Your task to perform on an android device: Open Chrome and go to settings Image 0: 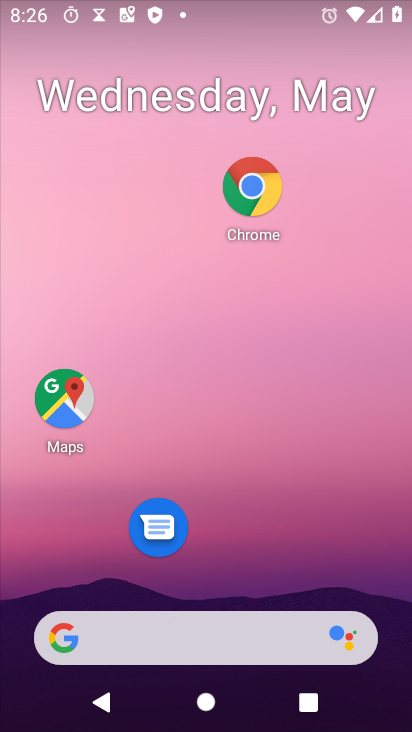
Step 0: click (274, 177)
Your task to perform on an android device: Open Chrome and go to settings Image 1: 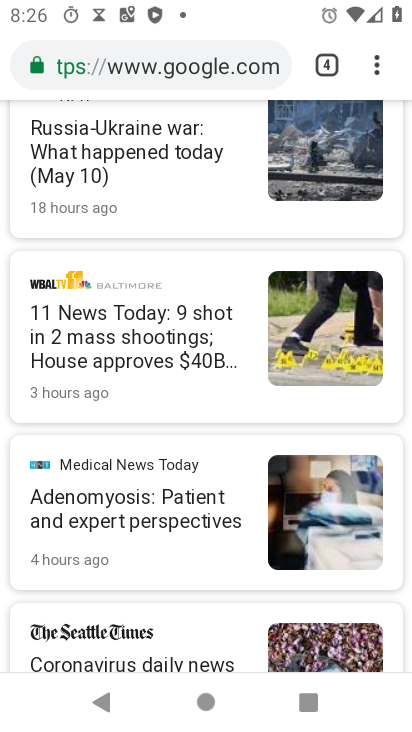
Step 1: task complete